Your task to perform on an android device: toggle show notifications on the lock screen Image 0: 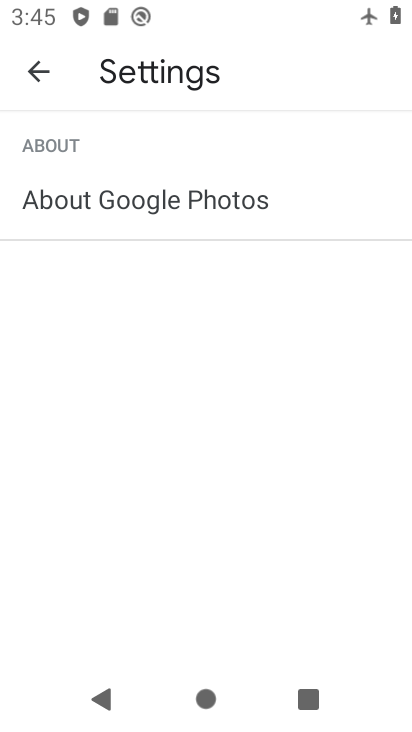
Step 0: press home button
Your task to perform on an android device: toggle show notifications on the lock screen Image 1: 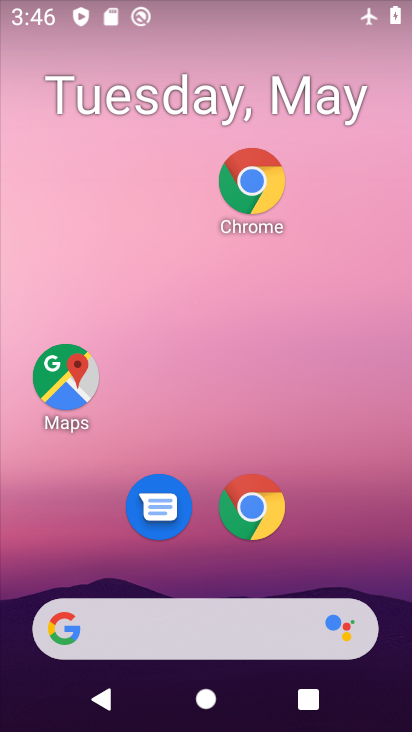
Step 1: drag from (359, 550) to (311, 160)
Your task to perform on an android device: toggle show notifications on the lock screen Image 2: 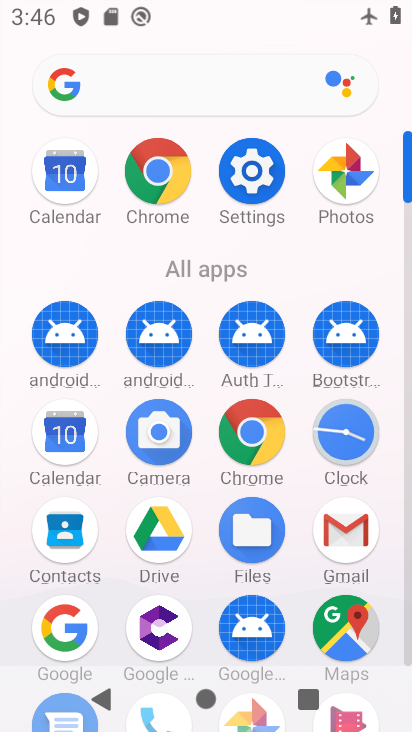
Step 2: click (283, 181)
Your task to perform on an android device: toggle show notifications on the lock screen Image 3: 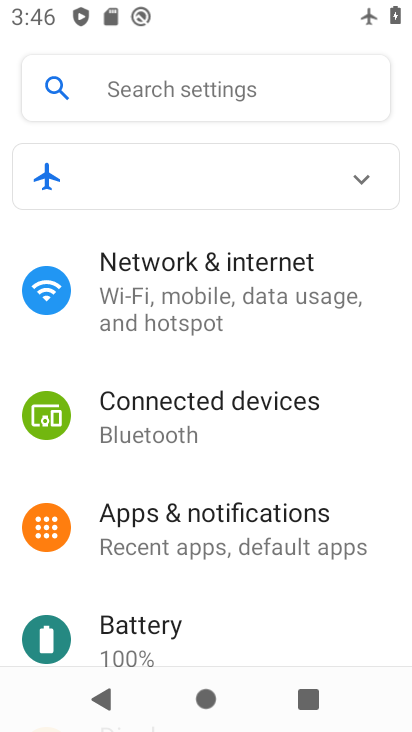
Step 3: click (248, 534)
Your task to perform on an android device: toggle show notifications on the lock screen Image 4: 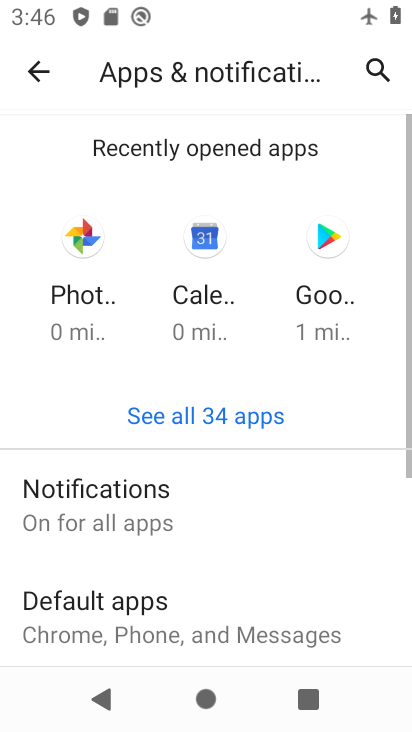
Step 4: click (82, 517)
Your task to perform on an android device: toggle show notifications on the lock screen Image 5: 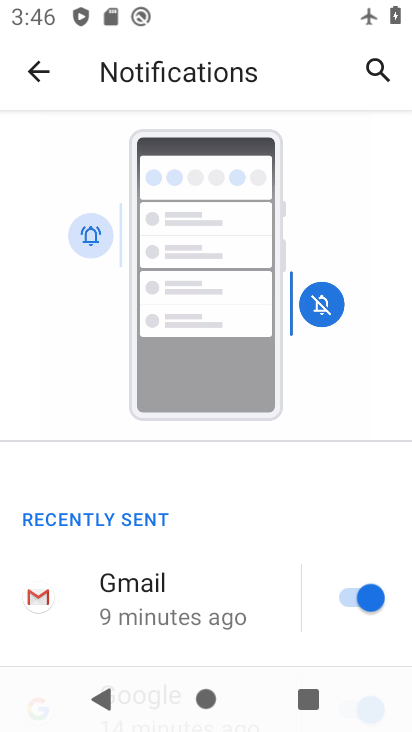
Step 5: drag from (220, 607) to (274, 146)
Your task to perform on an android device: toggle show notifications on the lock screen Image 6: 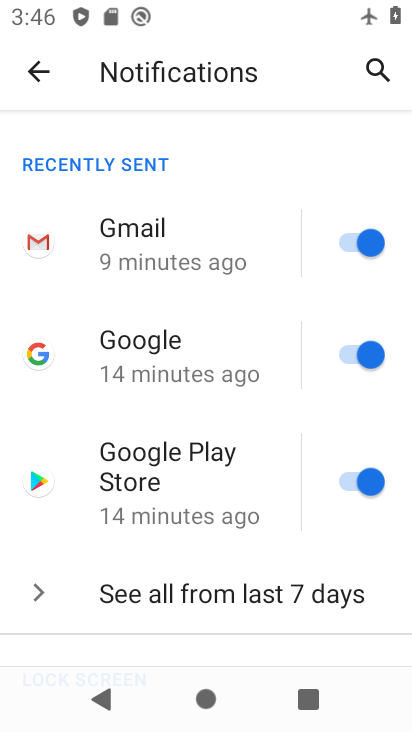
Step 6: drag from (124, 301) to (143, 638)
Your task to perform on an android device: toggle show notifications on the lock screen Image 7: 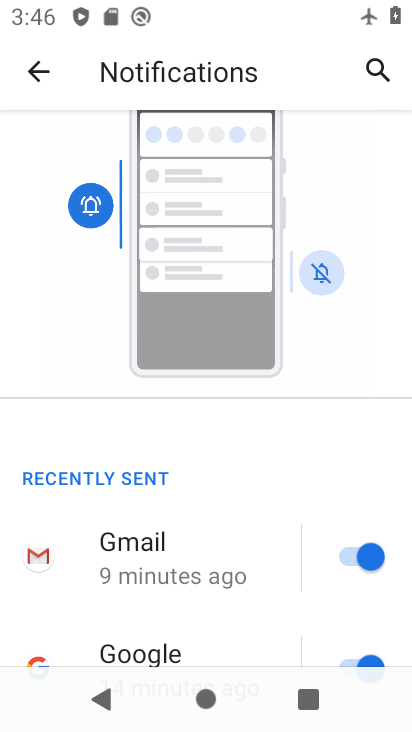
Step 7: drag from (135, 387) to (170, 649)
Your task to perform on an android device: toggle show notifications on the lock screen Image 8: 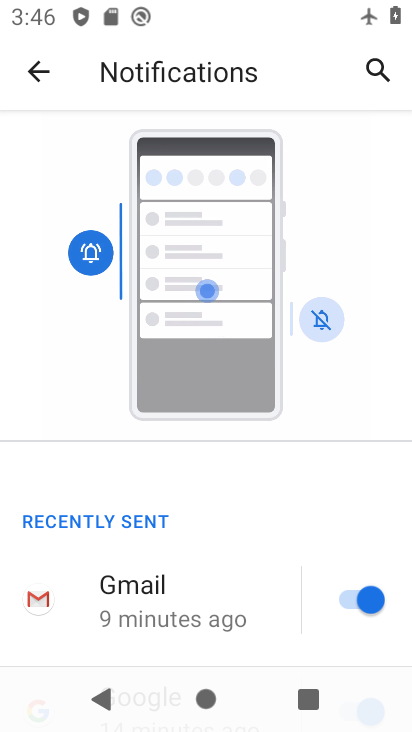
Step 8: drag from (172, 624) to (144, 237)
Your task to perform on an android device: toggle show notifications on the lock screen Image 9: 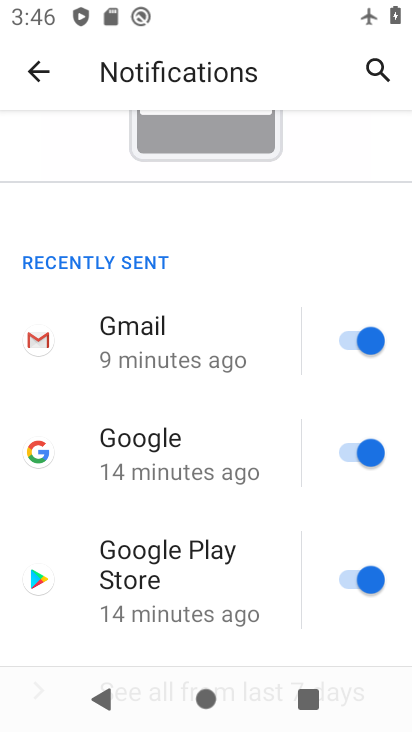
Step 9: click (180, 233)
Your task to perform on an android device: toggle show notifications on the lock screen Image 10: 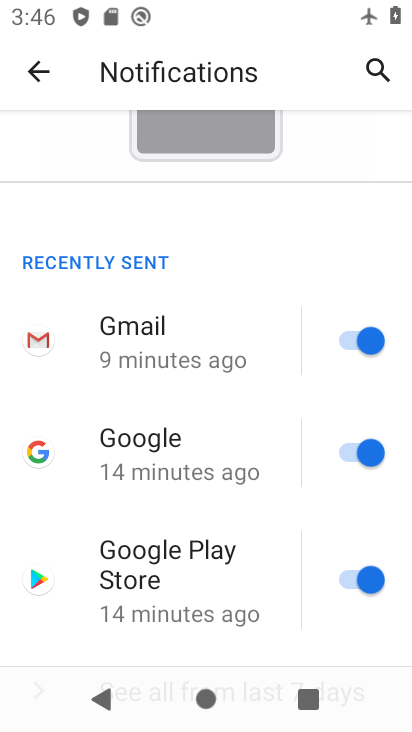
Step 10: click (361, 578)
Your task to perform on an android device: toggle show notifications on the lock screen Image 11: 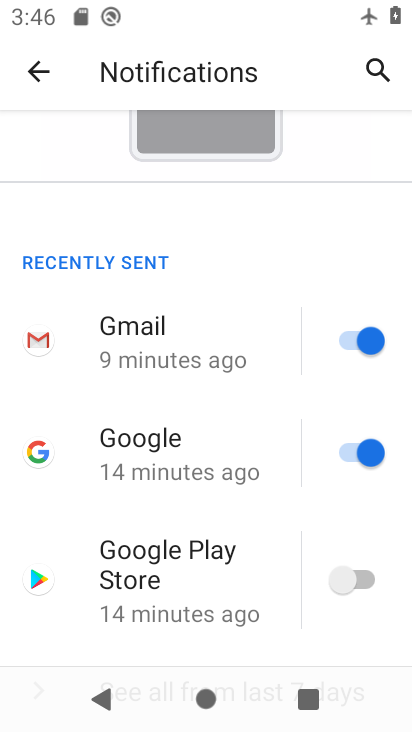
Step 11: task complete